Your task to perform on an android device: Open Google Chrome Image 0: 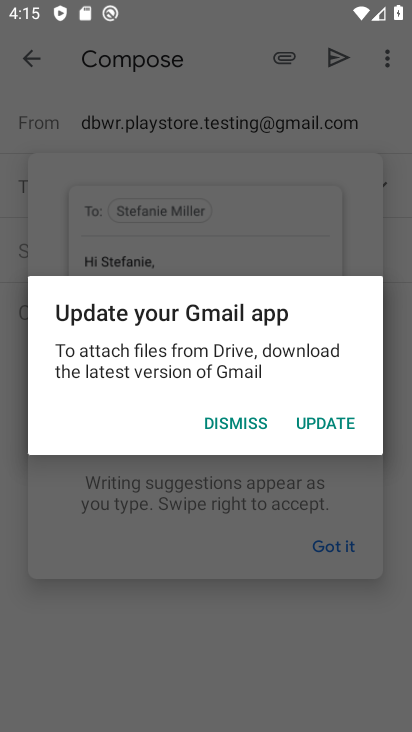
Step 0: press home button
Your task to perform on an android device: Open Google Chrome Image 1: 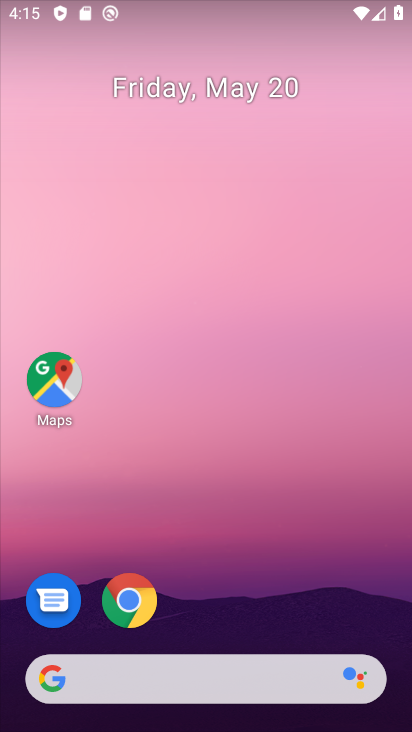
Step 1: click (134, 601)
Your task to perform on an android device: Open Google Chrome Image 2: 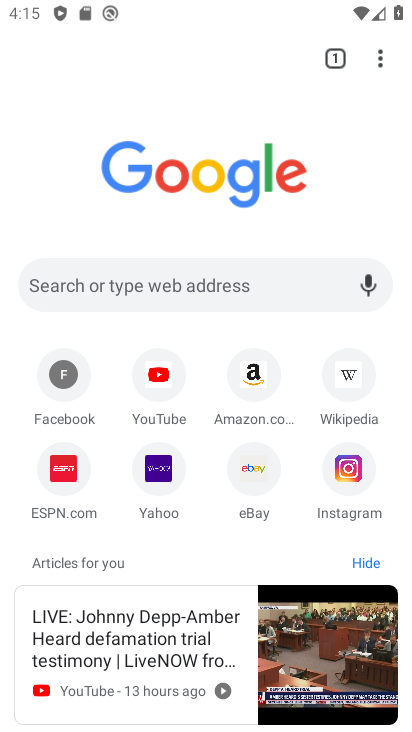
Step 2: task complete